Your task to perform on an android device: Go to Google maps Image 0: 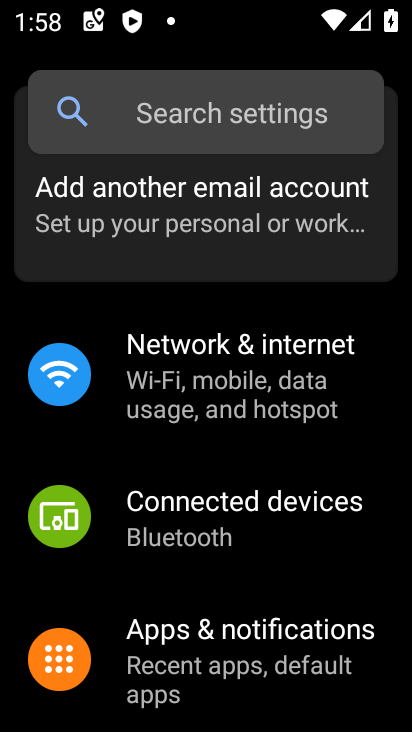
Step 0: press home button
Your task to perform on an android device: Go to Google maps Image 1: 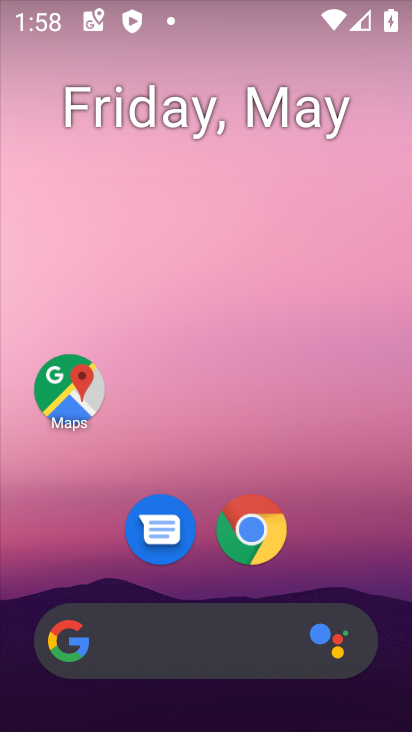
Step 1: click (70, 383)
Your task to perform on an android device: Go to Google maps Image 2: 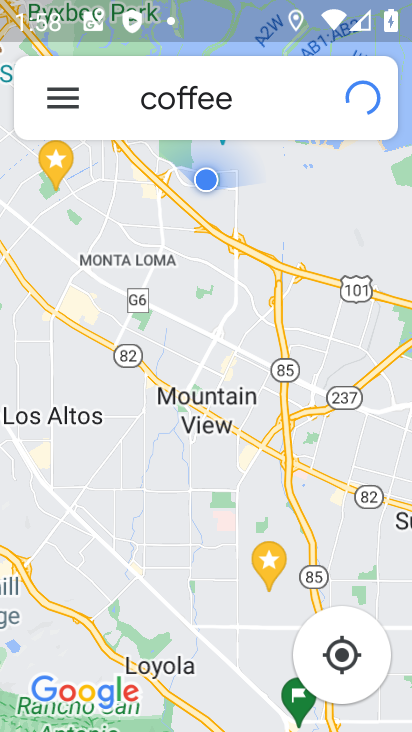
Step 2: task complete